Your task to perform on an android device: turn off smart reply in the gmail app Image 0: 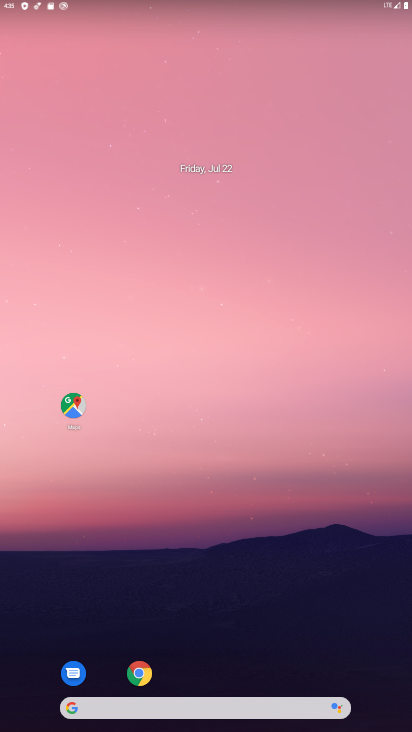
Step 0: press home button
Your task to perform on an android device: turn off smart reply in the gmail app Image 1: 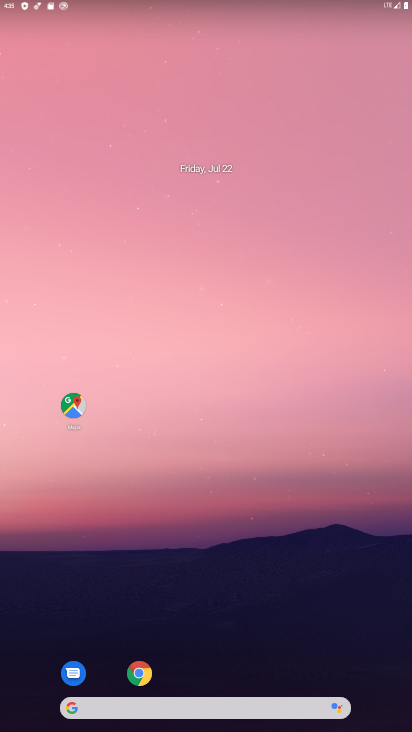
Step 1: drag from (252, 663) to (257, 63)
Your task to perform on an android device: turn off smart reply in the gmail app Image 2: 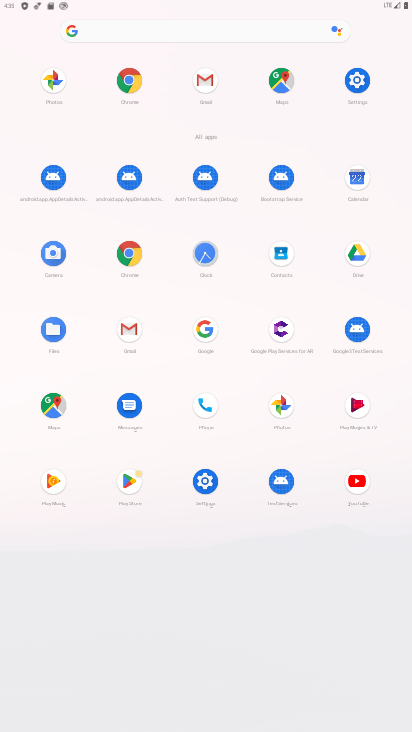
Step 2: click (203, 74)
Your task to perform on an android device: turn off smart reply in the gmail app Image 3: 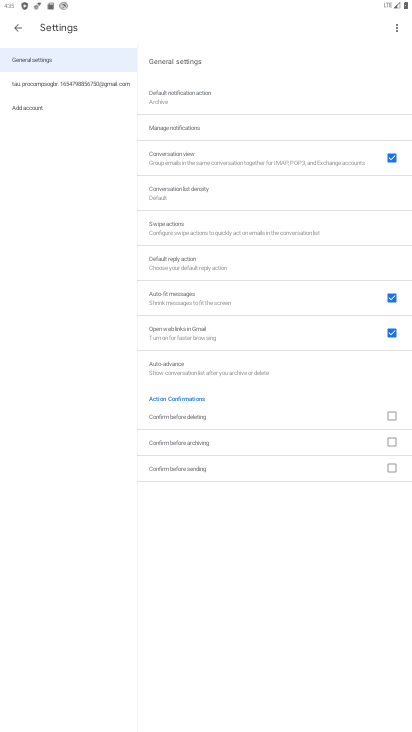
Step 3: click (23, 32)
Your task to perform on an android device: turn off smart reply in the gmail app Image 4: 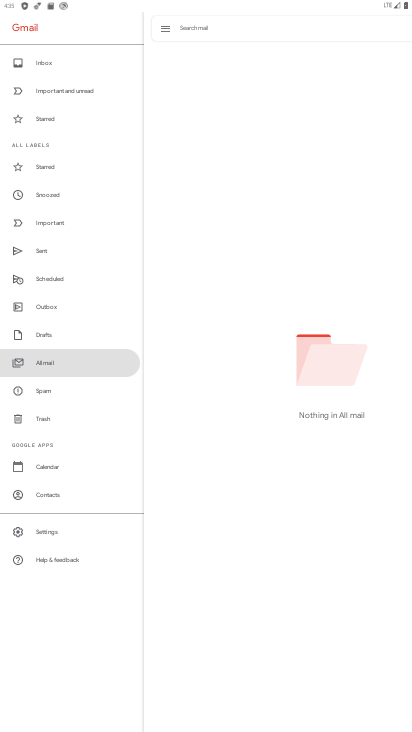
Step 4: click (45, 529)
Your task to perform on an android device: turn off smart reply in the gmail app Image 5: 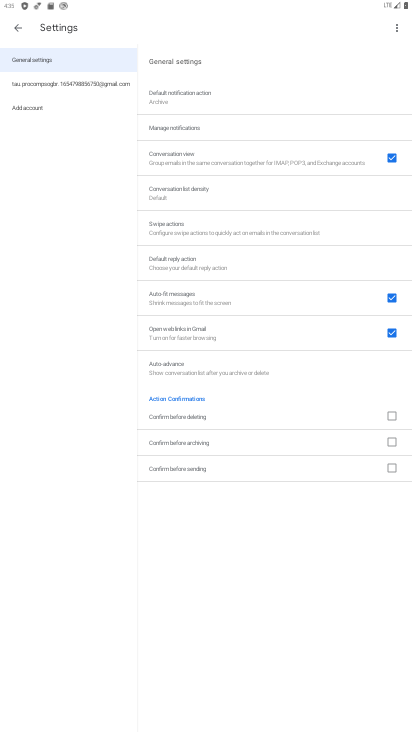
Step 5: click (37, 86)
Your task to perform on an android device: turn off smart reply in the gmail app Image 6: 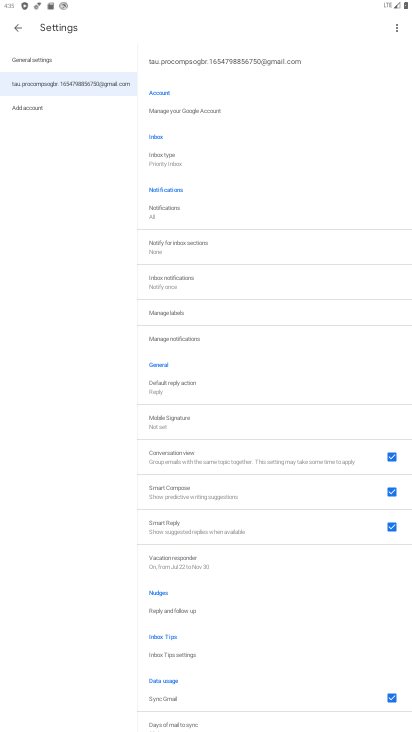
Step 6: click (392, 527)
Your task to perform on an android device: turn off smart reply in the gmail app Image 7: 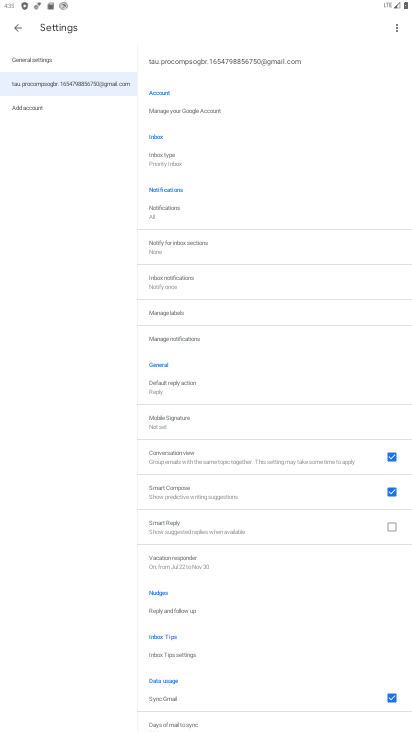
Step 7: task complete